Your task to perform on an android device: turn pop-ups on in chrome Image 0: 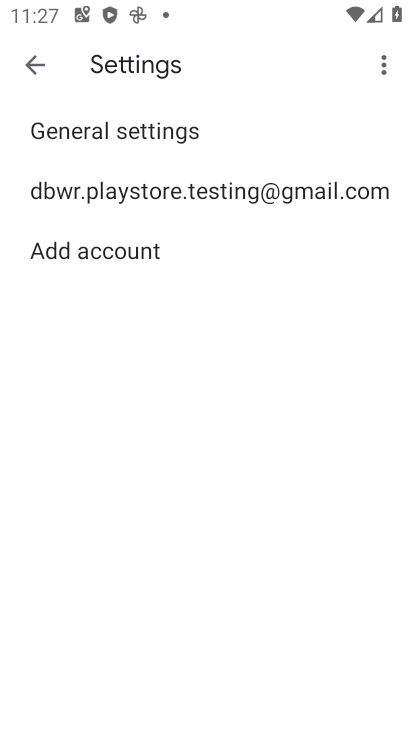
Step 0: press home button
Your task to perform on an android device: turn pop-ups on in chrome Image 1: 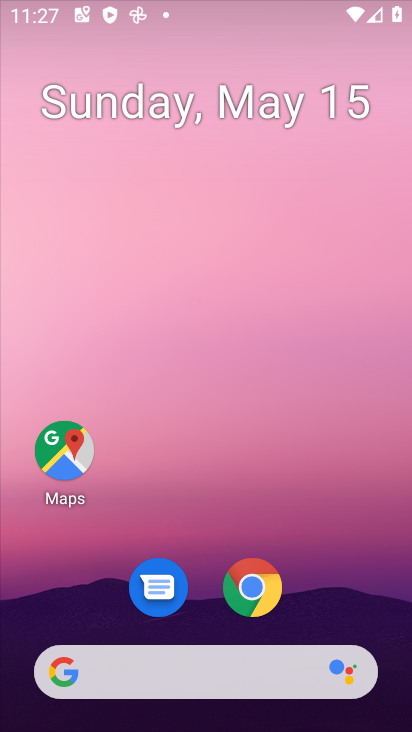
Step 1: drag from (384, 671) to (370, 153)
Your task to perform on an android device: turn pop-ups on in chrome Image 2: 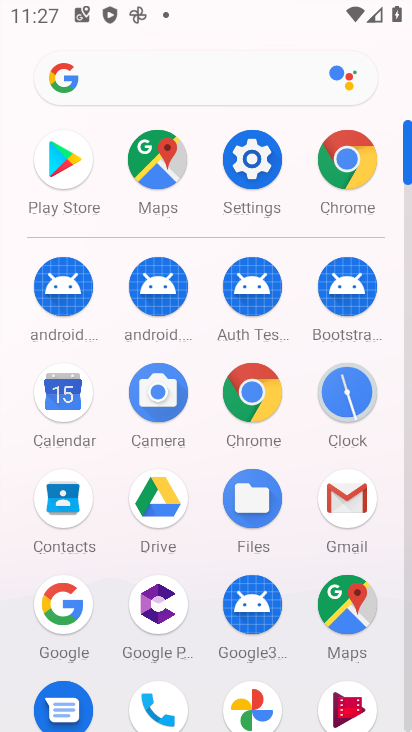
Step 2: click (338, 188)
Your task to perform on an android device: turn pop-ups on in chrome Image 3: 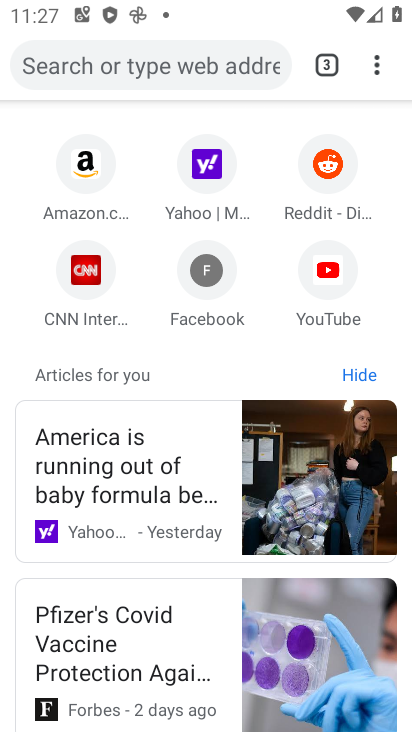
Step 3: click (380, 62)
Your task to perform on an android device: turn pop-ups on in chrome Image 4: 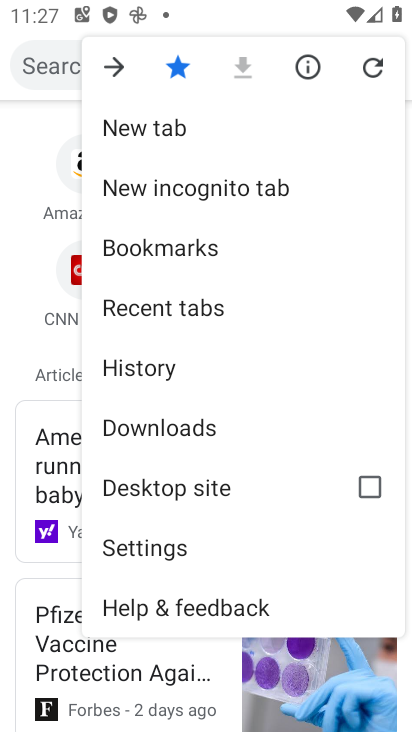
Step 4: click (151, 549)
Your task to perform on an android device: turn pop-ups on in chrome Image 5: 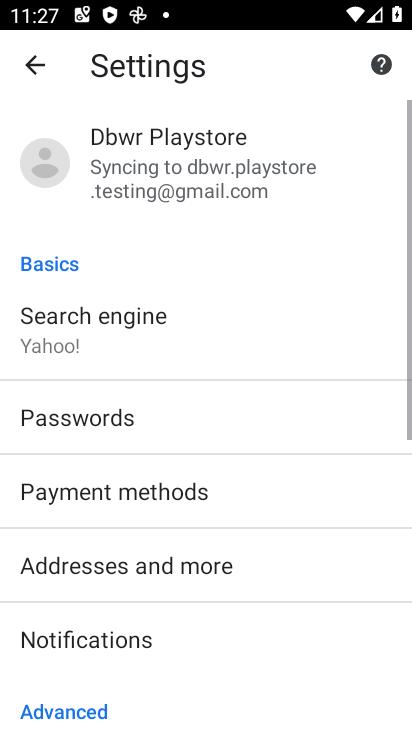
Step 5: drag from (130, 650) to (186, 136)
Your task to perform on an android device: turn pop-ups on in chrome Image 6: 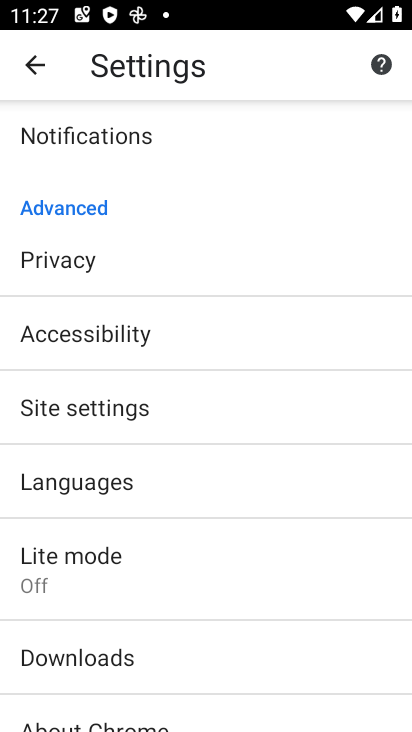
Step 6: click (217, 410)
Your task to perform on an android device: turn pop-ups on in chrome Image 7: 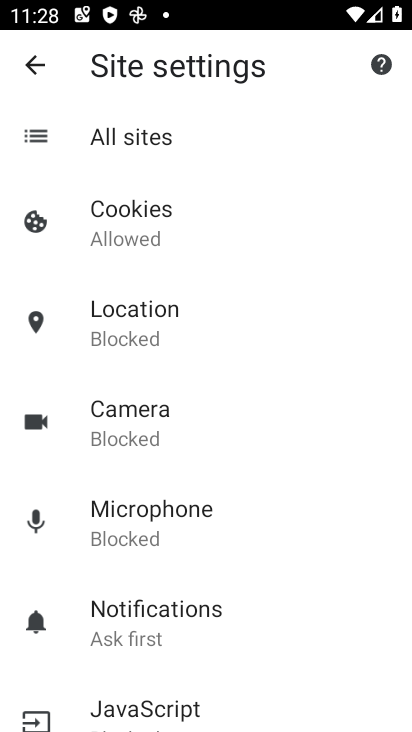
Step 7: drag from (163, 712) to (223, 206)
Your task to perform on an android device: turn pop-ups on in chrome Image 8: 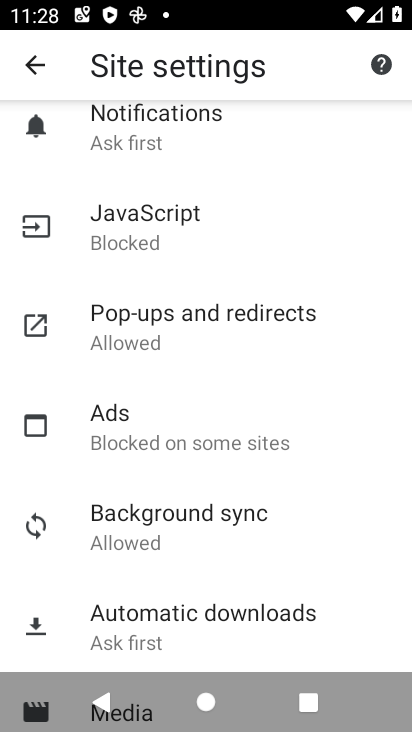
Step 8: click (145, 310)
Your task to perform on an android device: turn pop-ups on in chrome Image 9: 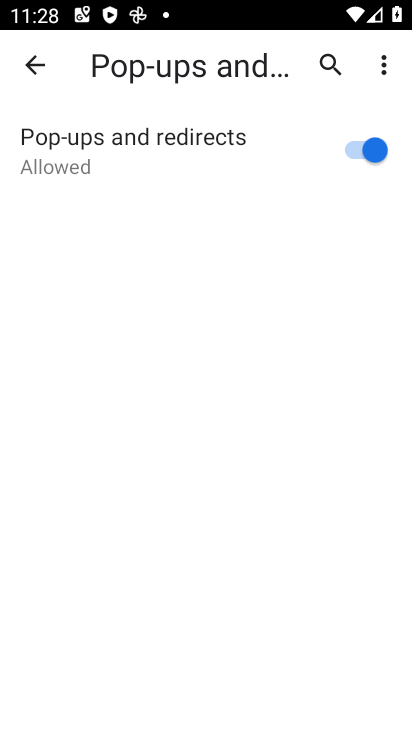
Step 9: task complete